Your task to perform on an android device: Open the calendar and show me this week's events? Image 0: 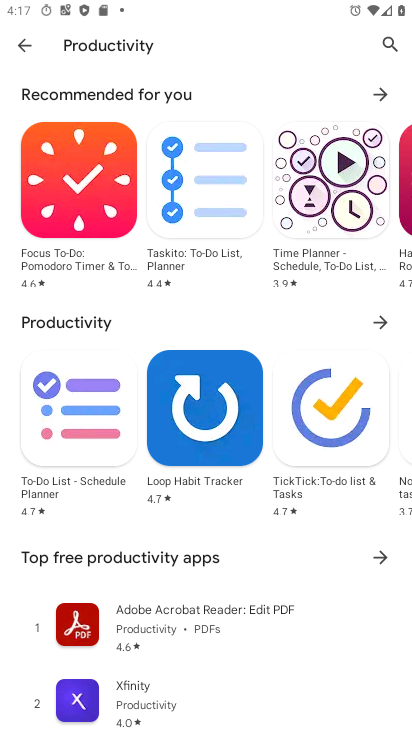
Step 0: press home button
Your task to perform on an android device: Open the calendar and show me this week's events? Image 1: 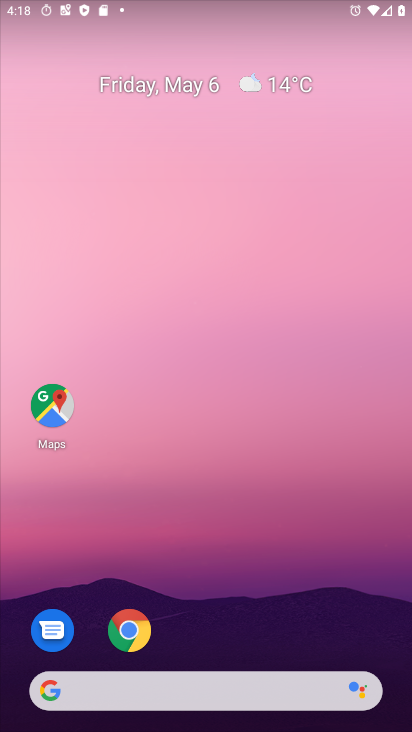
Step 1: click (127, 75)
Your task to perform on an android device: Open the calendar and show me this week's events? Image 2: 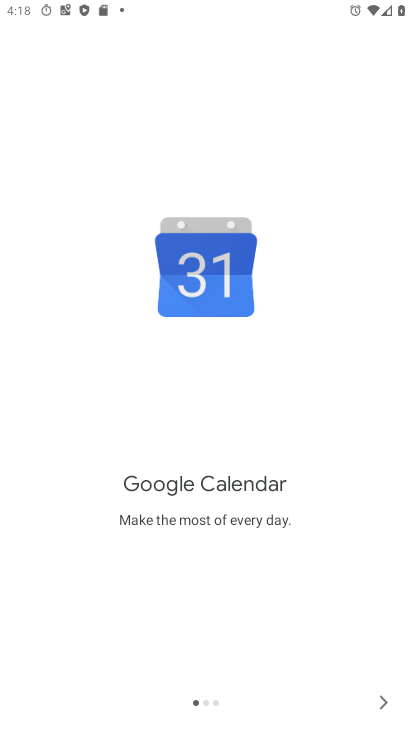
Step 2: click (391, 714)
Your task to perform on an android device: Open the calendar and show me this week's events? Image 3: 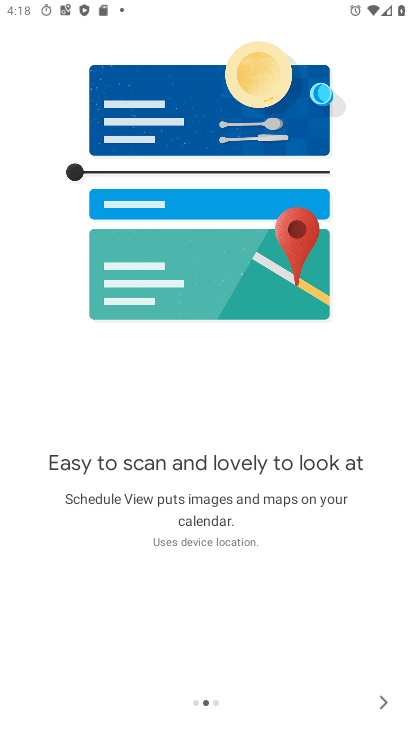
Step 3: click (391, 714)
Your task to perform on an android device: Open the calendar and show me this week's events? Image 4: 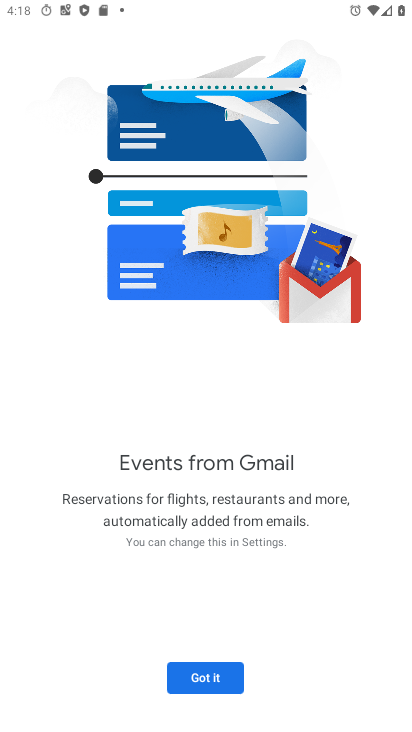
Step 4: click (177, 671)
Your task to perform on an android device: Open the calendar and show me this week's events? Image 5: 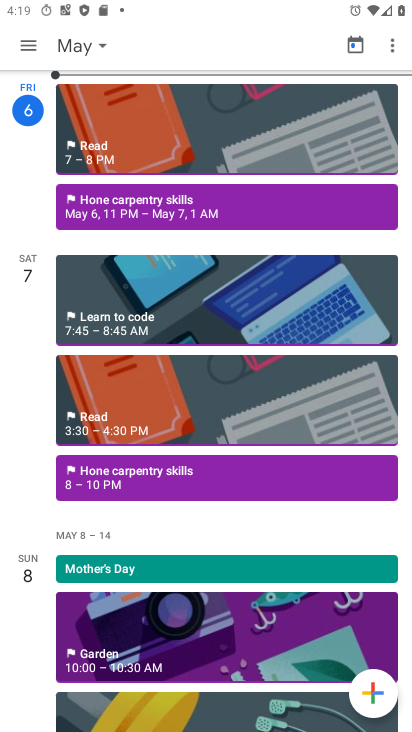
Step 5: task complete